Your task to perform on an android device: toggle sleep mode Image 0: 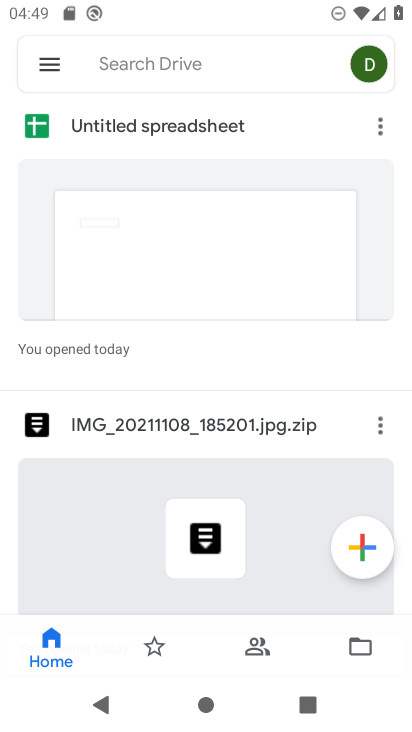
Step 0: press home button
Your task to perform on an android device: toggle sleep mode Image 1: 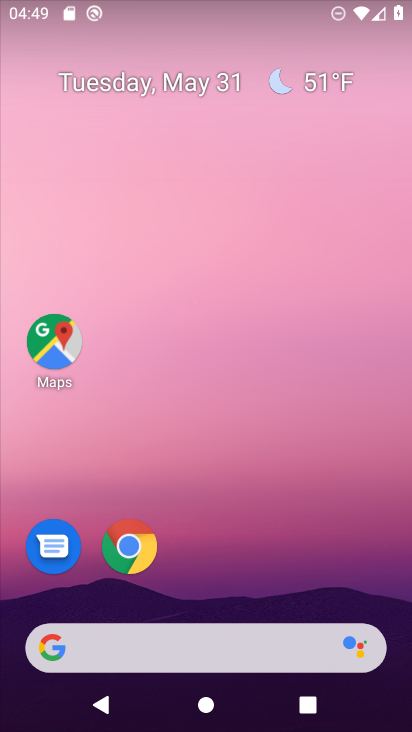
Step 1: drag from (208, 590) to (204, 222)
Your task to perform on an android device: toggle sleep mode Image 2: 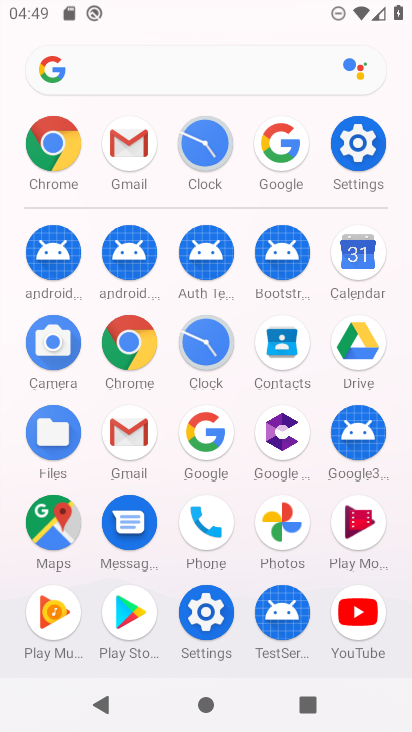
Step 2: click (353, 185)
Your task to perform on an android device: toggle sleep mode Image 3: 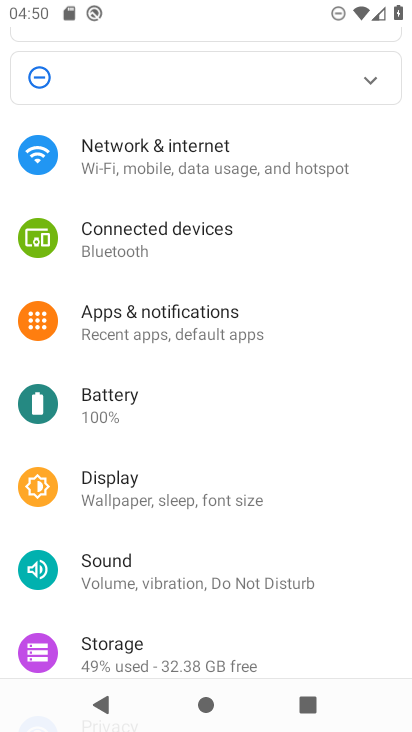
Step 3: task complete